Your task to perform on an android device: check out phone information Image 0: 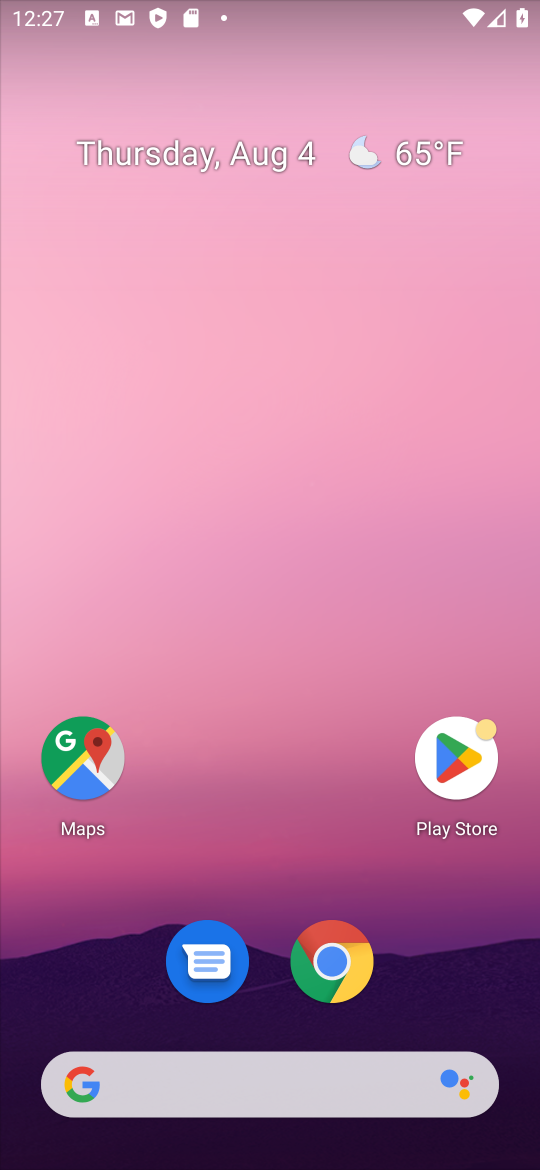
Step 0: drag from (296, 835) to (338, 7)
Your task to perform on an android device: check out phone information Image 1: 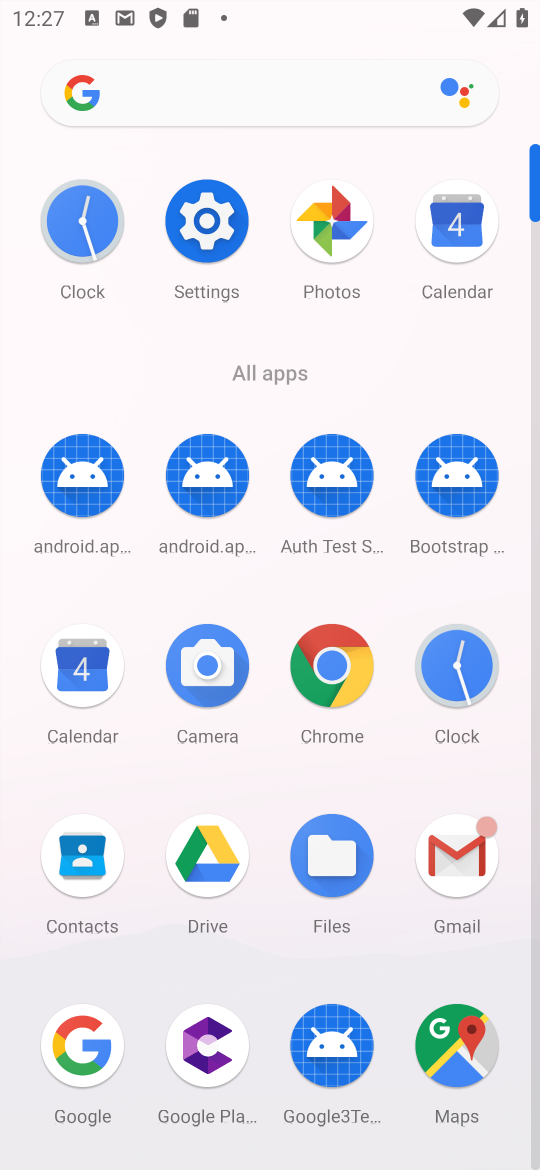
Step 1: drag from (268, 767) to (293, 78)
Your task to perform on an android device: check out phone information Image 2: 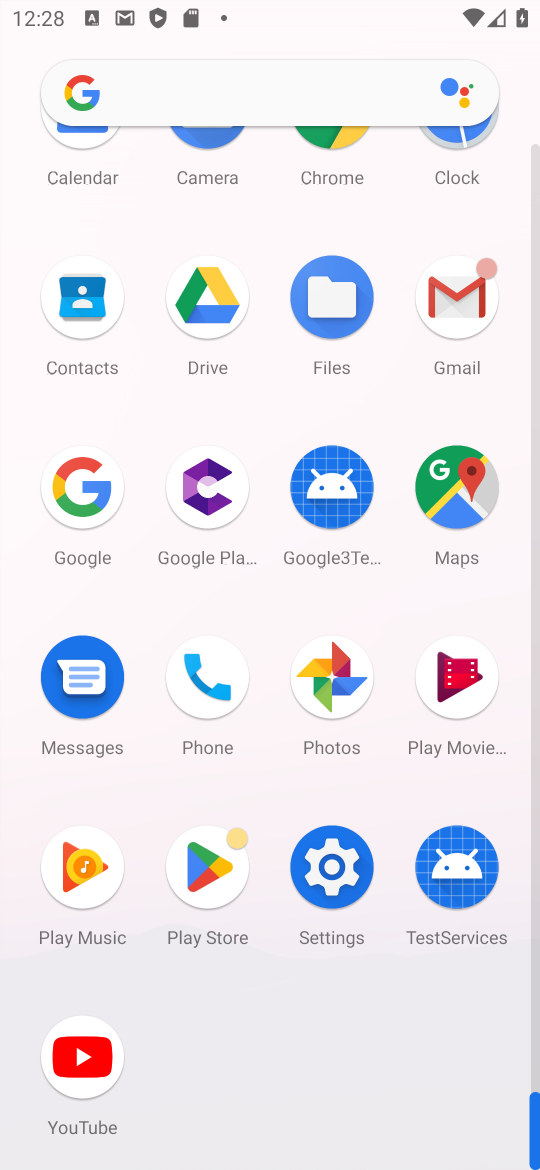
Step 2: click (201, 678)
Your task to perform on an android device: check out phone information Image 3: 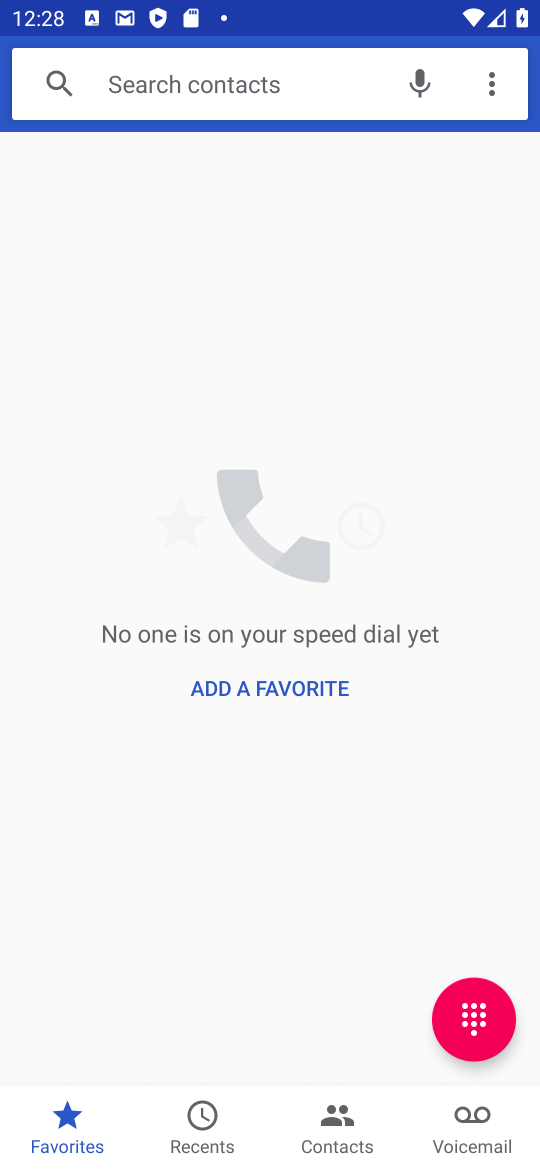
Step 3: click (492, 66)
Your task to perform on an android device: check out phone information Image 4: 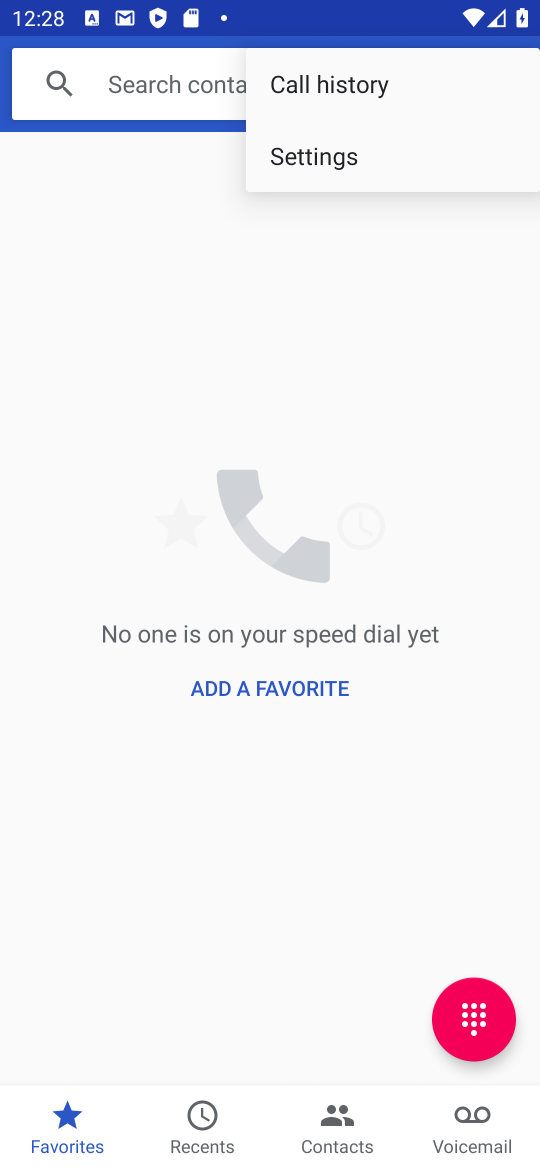
Step 4: click (350, 157)
Your task to perform on an android device: check out phone information Image 5: 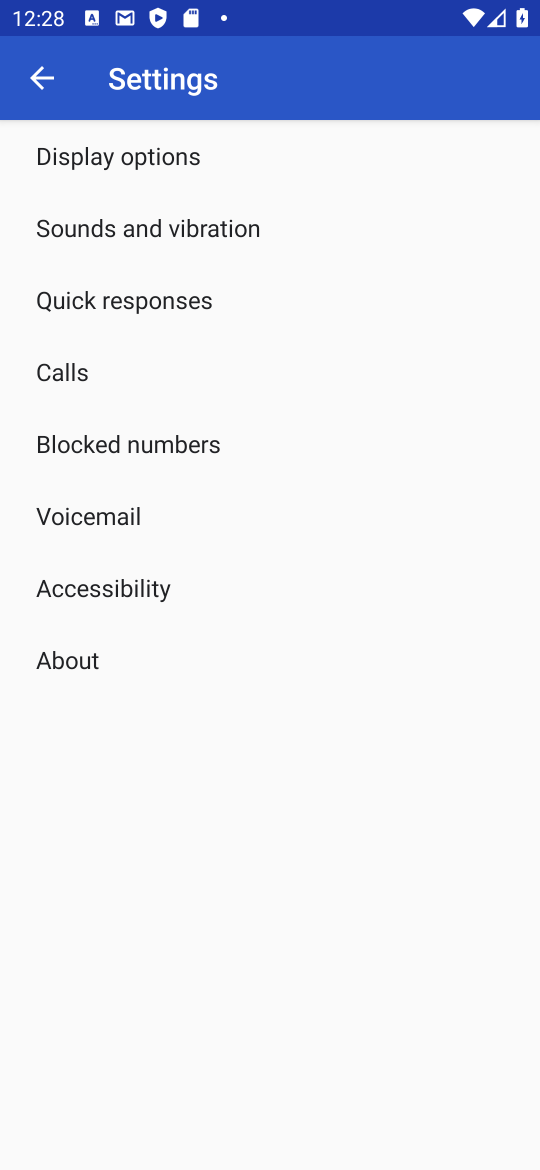
Step 5: click (81, 654)
Your task to perform on an android device: check out phone information Image 6: 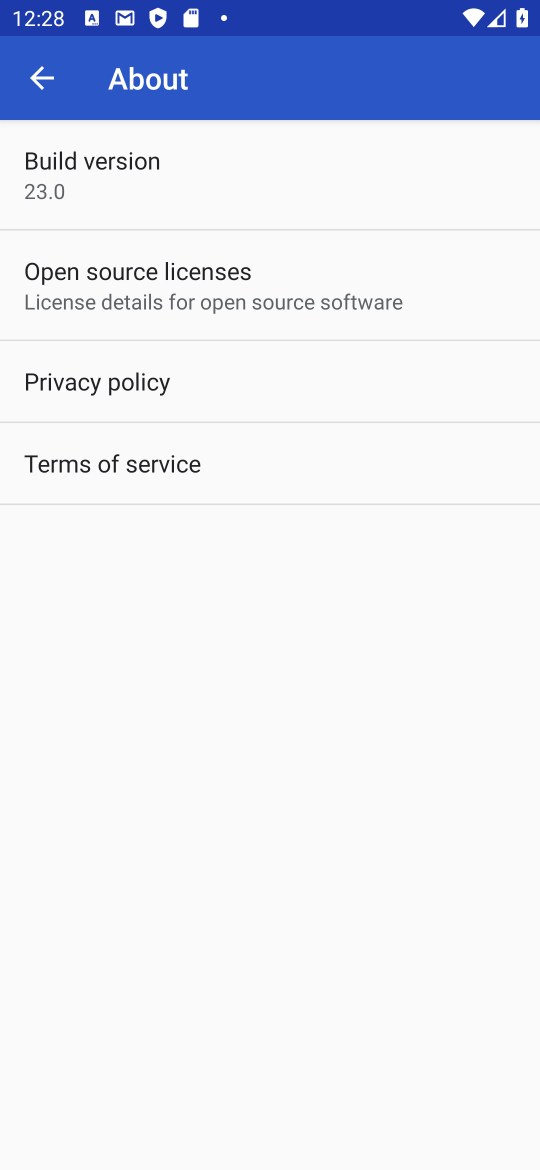
Step 6: task complete